Your task to perform on an android device: open chrome privacy settings Image 0: 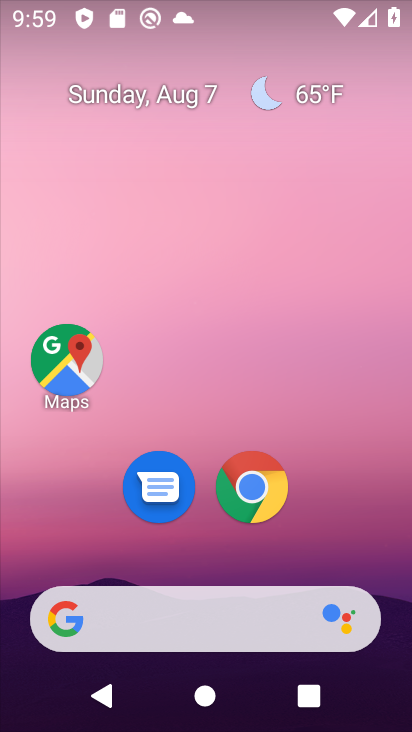
Step 0: click (259, 472)
Your task to perform on an android device: open chrome privacy settings Image 1: 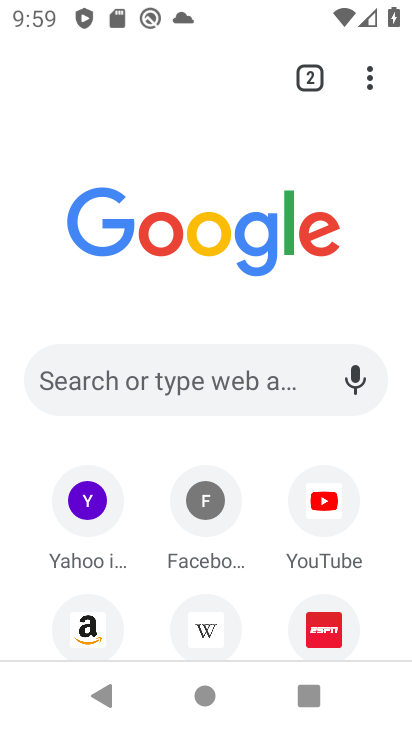
Step 1: click (364, 78)
Your task to perform on an android device: open chrome privacy settings Image 2: 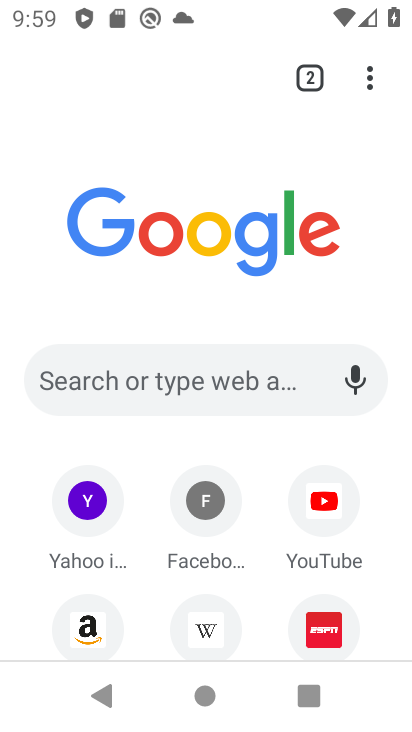
Step 2: click (367, 73)
Your task to perform on an android device: open chrome privacy settings Image 3: 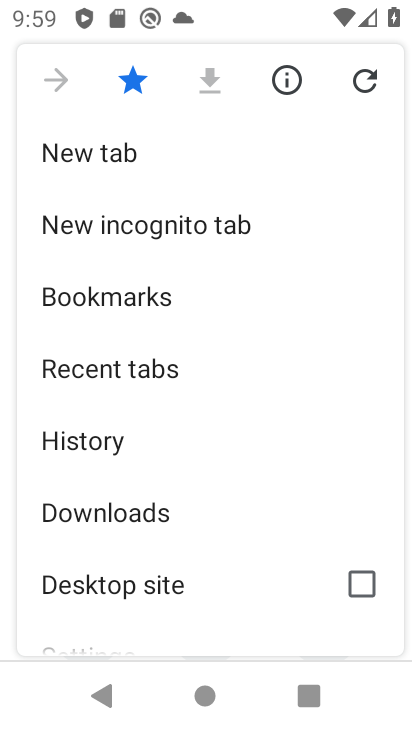
Step 3: drag from (215, 580) to (223, 237)
Your task to perform on an android device: open chrome privacy settings Image 4: 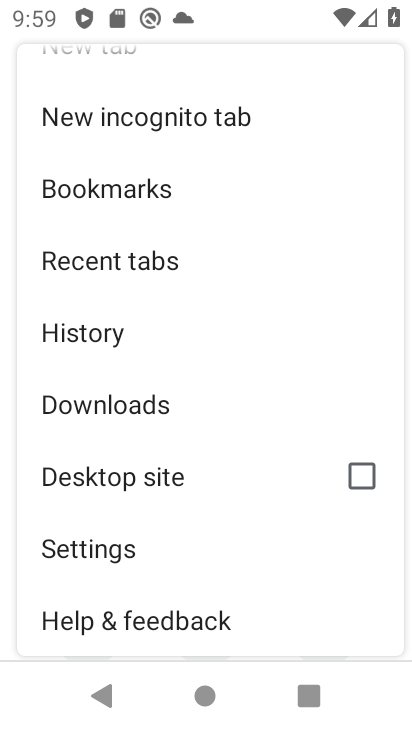
Step 4: click (102, 555)
Your task to perform on an android device: open chrome privacy settings Image 5: 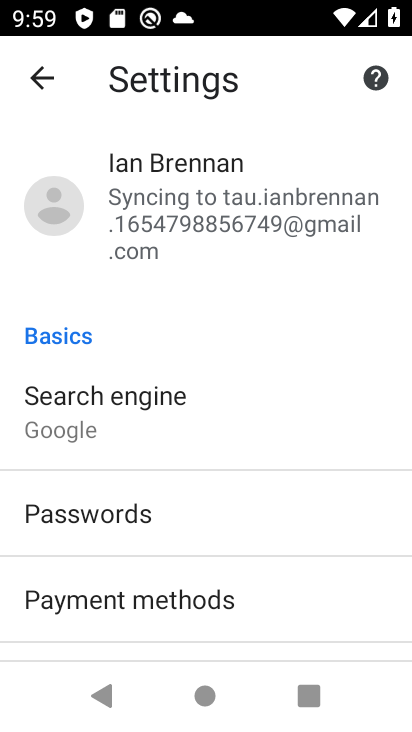
Step 5: drag from (259, 583) to (266, 232)
Your task to perform on an android device: open chrome privacy settings Image 6: 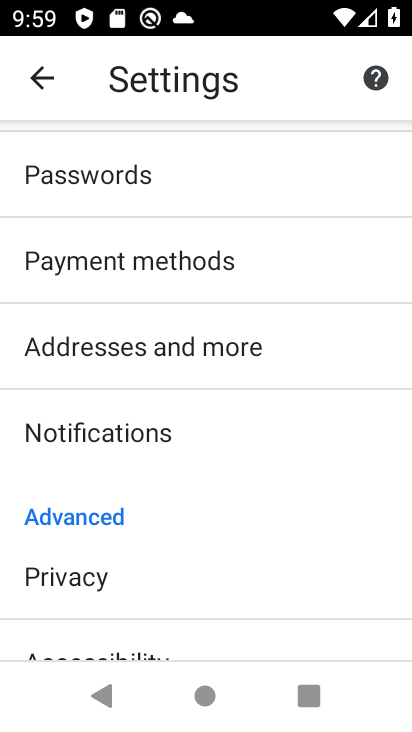
Step 6: click (74, 577)
Your task to perform on an android device: open chrome privacy settings Image 7: 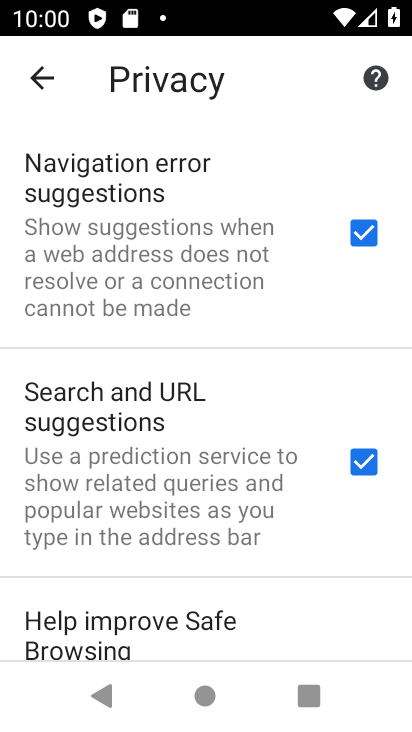
Step 7: task complete